Your task to perform on an android device: install app "Reddit" Image 0: 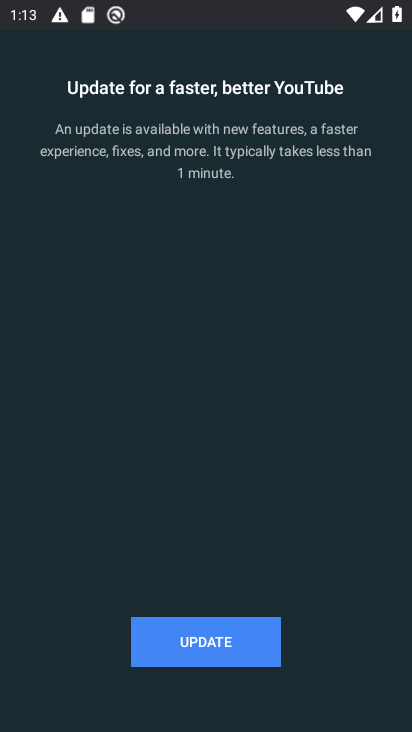
Step 0: press home button
Your task to perform on an android device: install app "Reddit" Image 1: 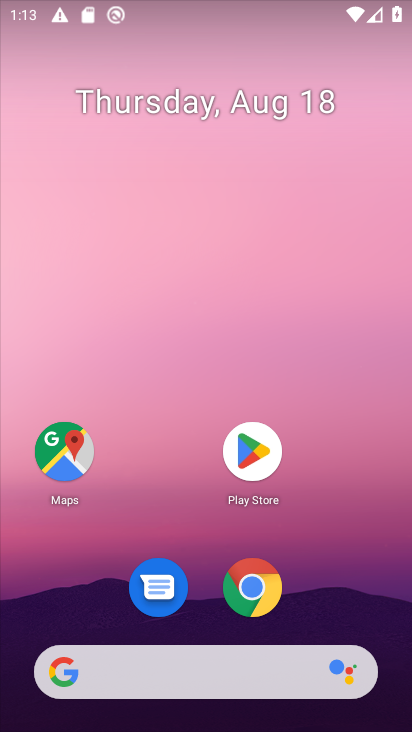
Step 1: click (247, 457)
Your task to perform on an android device: install app "Reddit" Image 2: 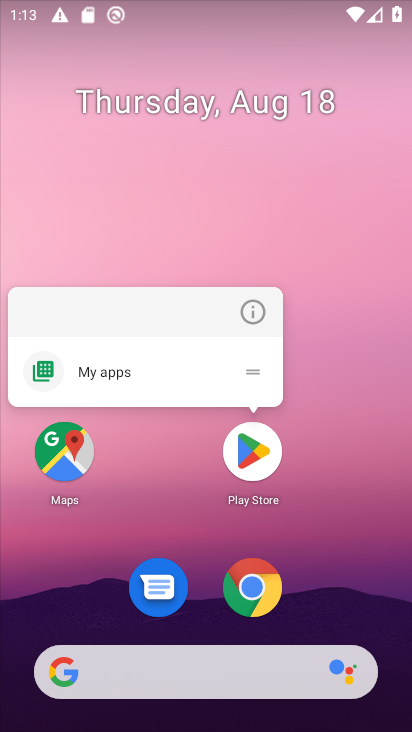
Step 2: click (256, 453)
Your task to perform on an android device: install app "Reddit" Image 3: 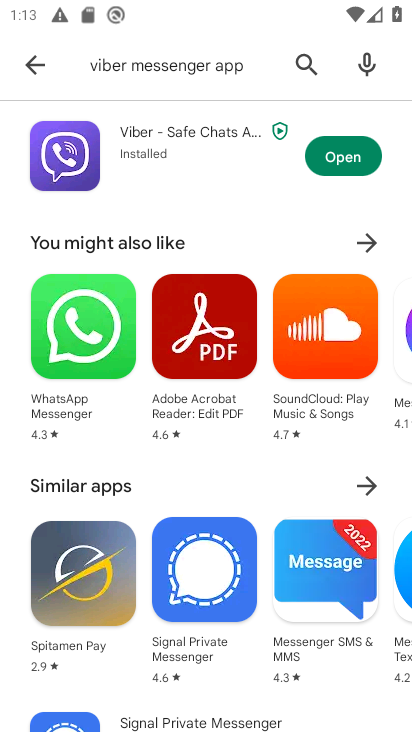
Step 3: click (299, 63)
Your task to perform on an android device: install app "Reddit" Image 4: 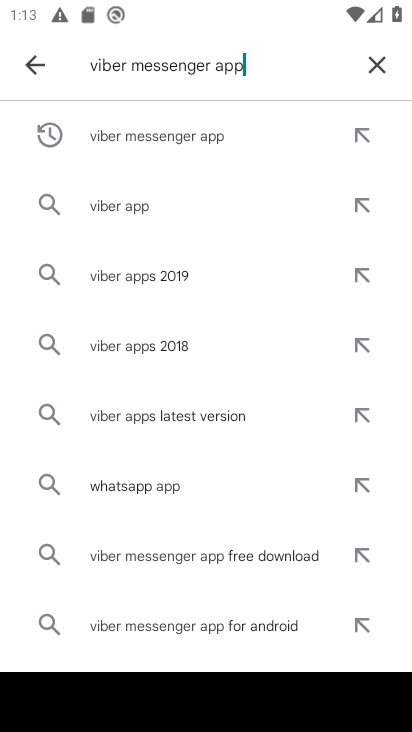
Step 4: click (376, 65)
Your task to perform on an android device: install app "Reddit" Image 5: 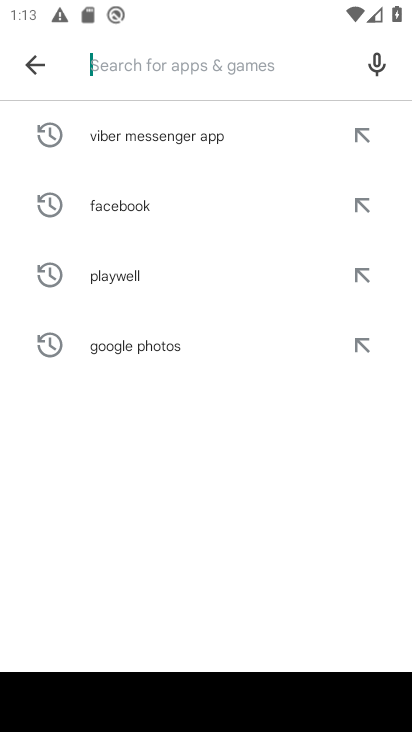
Step 5: type "Reddit"
Your task to perform on an android device: install app "Reddit" Image 6: 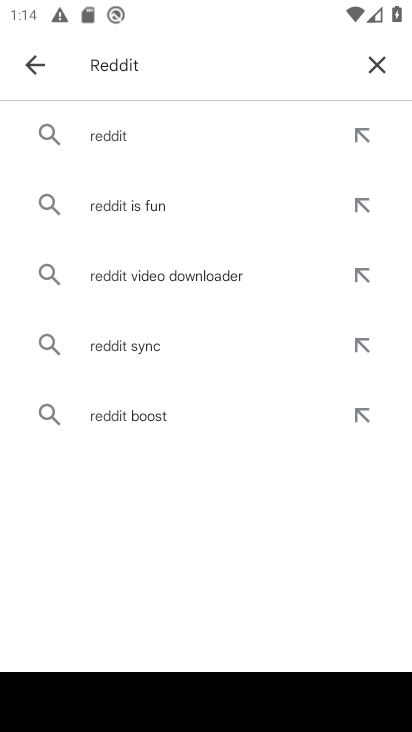
Step 6: click (117, 136)
Your task to perform on an android device: install app "Reddit" Image 7: 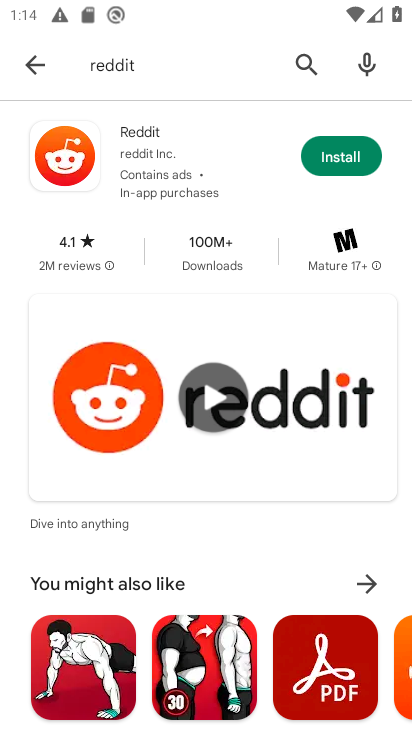
Step 7: click (321, 160)
Your task to perform on an android device: install app "Reddit" Image 8: 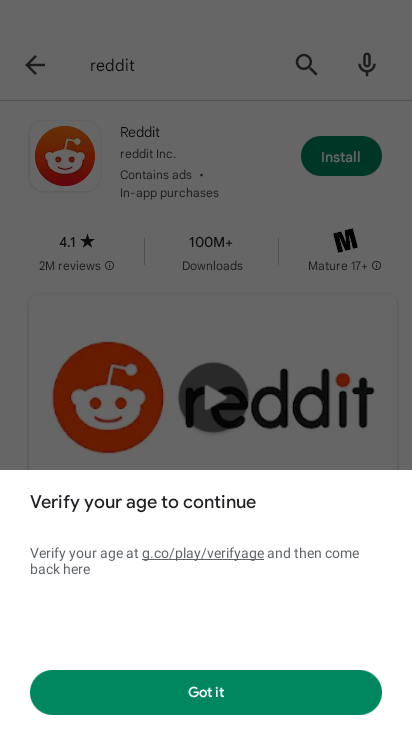
Step 8: click (207, 685)
Your task to perform on an android device: install app "Reddit" Image 9: 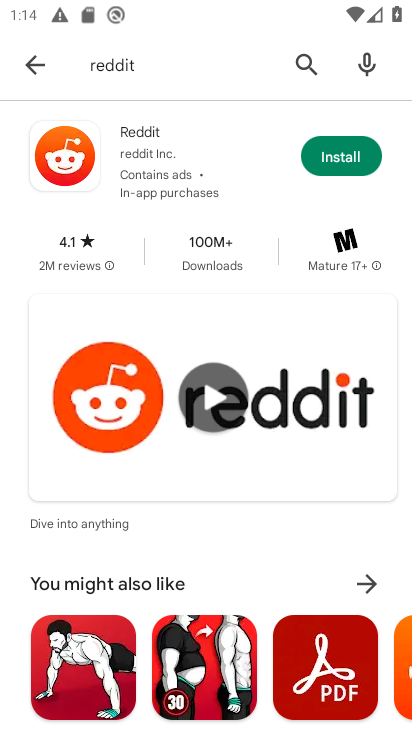
Step 9: click (341, 158)
Your task to perform on an android device: install app "Reddit" Image 10: 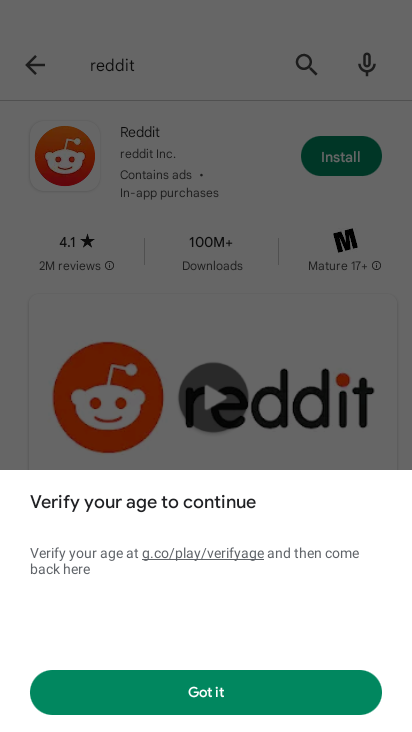
Step 10: click (219, 707)
Your task to perform on an android device: install app "Reddit" Image 11: 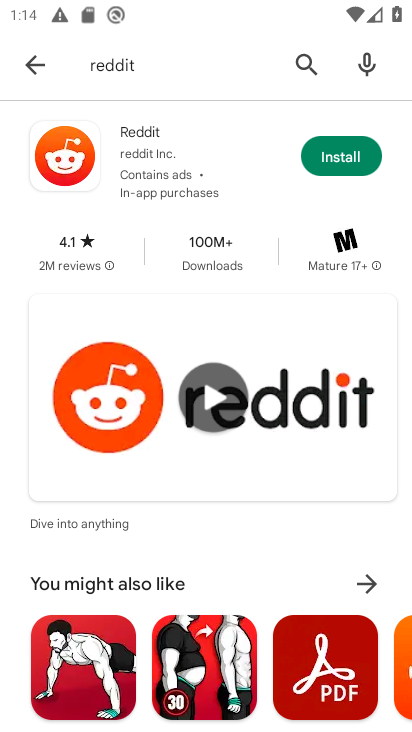
Step 11: task complete